Your task to perform on an android device: turn on sleep mode Image 0: 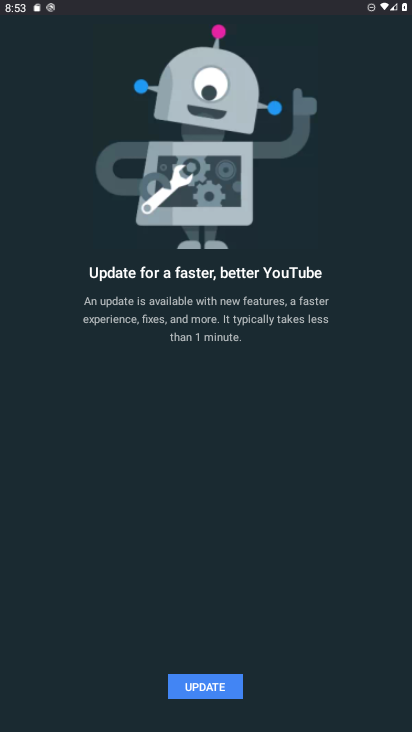
Step 0: press home button
Your task to perform on an android device: turn on sleep mode Image 1: 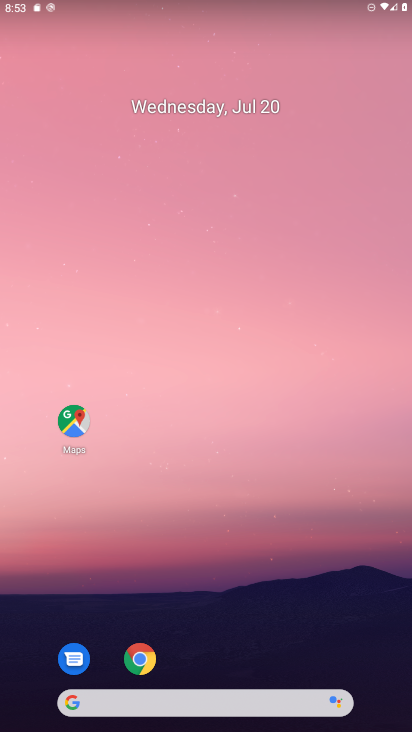
Step 1: drag from (270, 651) to (327, 42)
Your task to perform on an android device: turn on sleep mode Image 2: 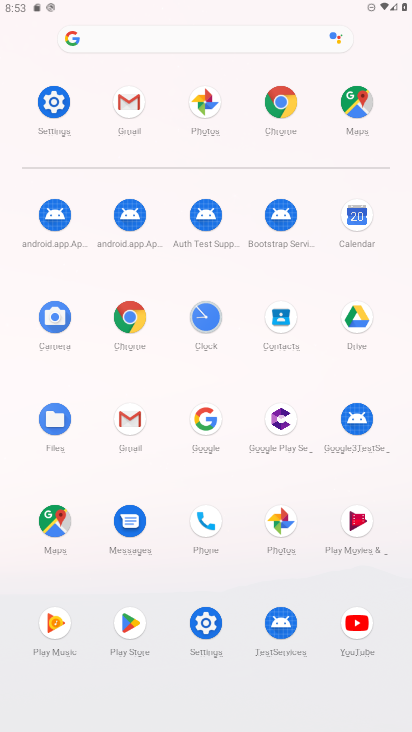
Step 2: click (203, 625)
Your task to perform on an android device: turn on sleep mode Image 3: 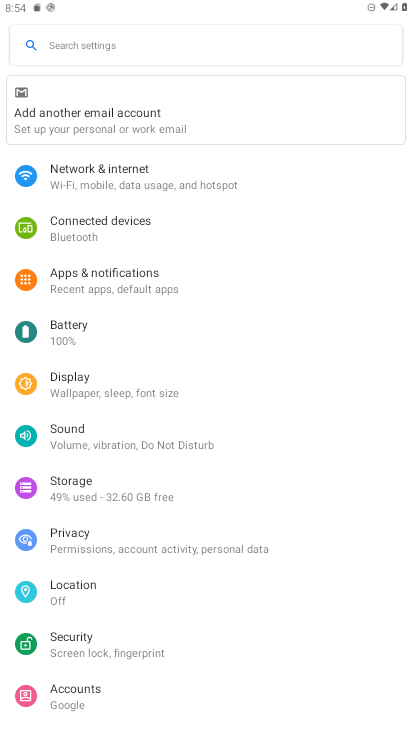
Step 3: click (77, 392)
Your task to perform on an android device: turn on sleep mode Image 4: 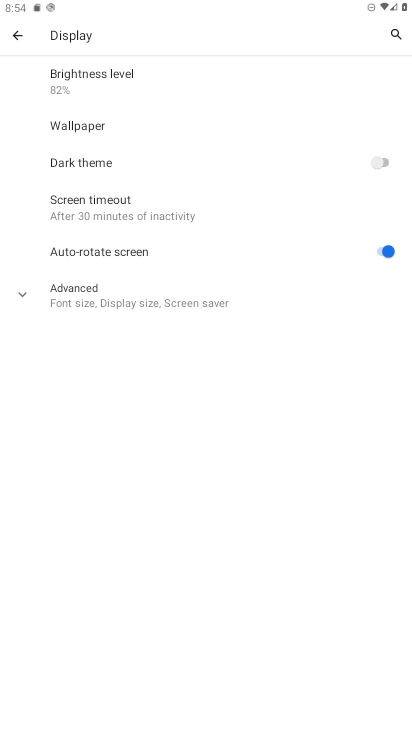
Step 4: task complete